Your task to perform on an android device: open device folders in google photos Image 0: 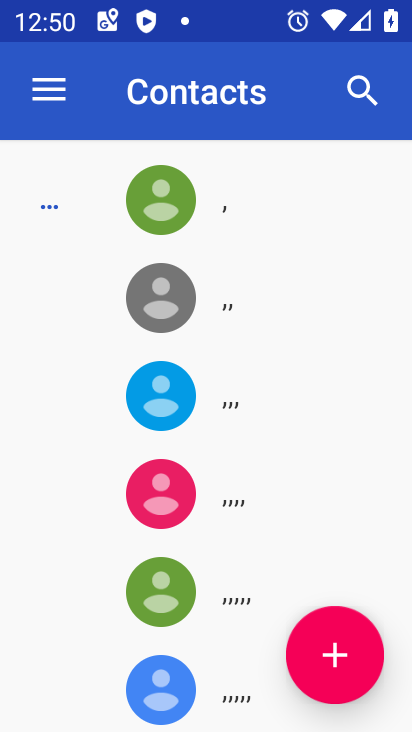
Step 0: press home button
Your task to perform on an android device: open device folders in google photos Image 1: 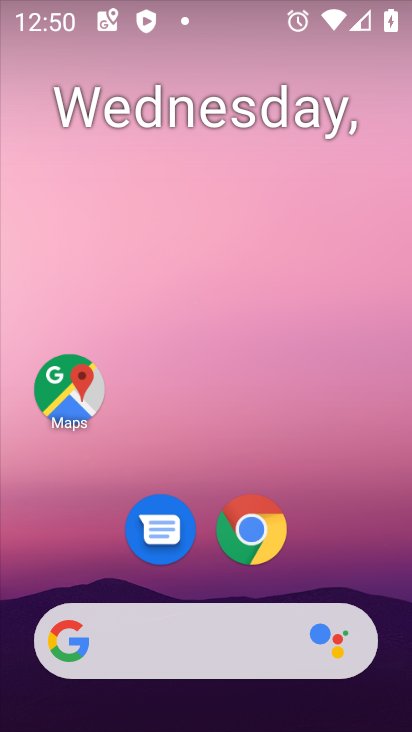
Step 1: drag from (394, 643) to (350, 94)
Your task to perform on an android device: open device folders in google photos Image 2: 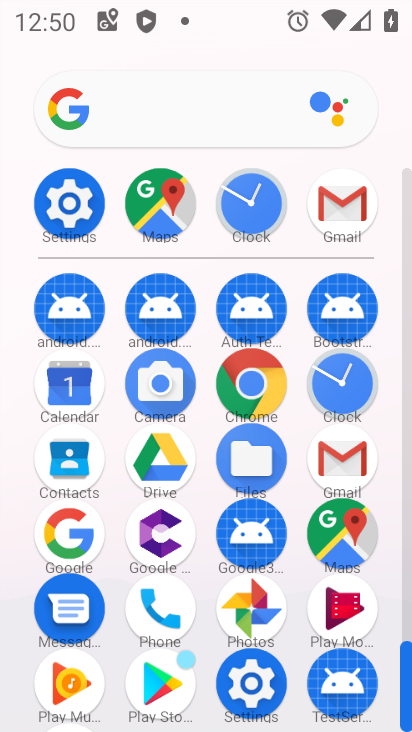
Step 2: click (252, 606)
Your task to perform on an android device: open device folders in google photos Image 3: 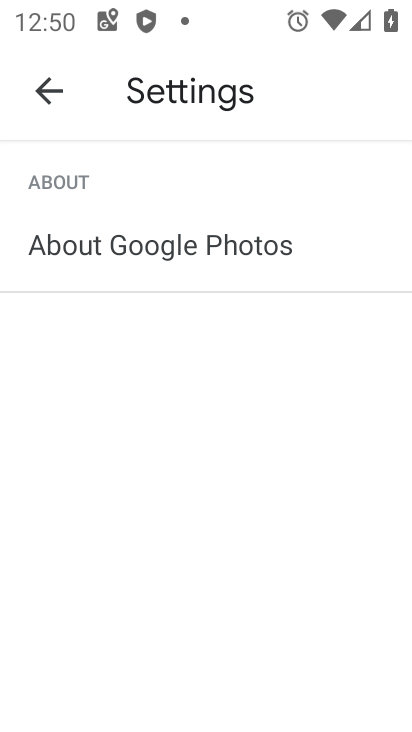
Step 3: press back button
Your task to perform on an android device: open device folders in google photos Image 4: 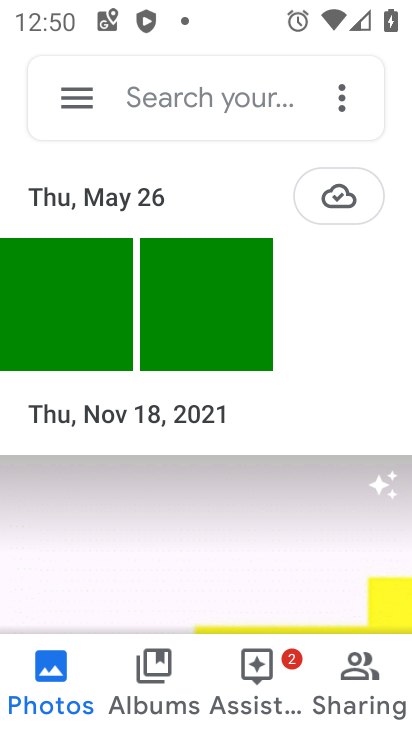
Step 4: click (69, 101)
Your task to perform on an android device: open device folders in google photos Image 5: 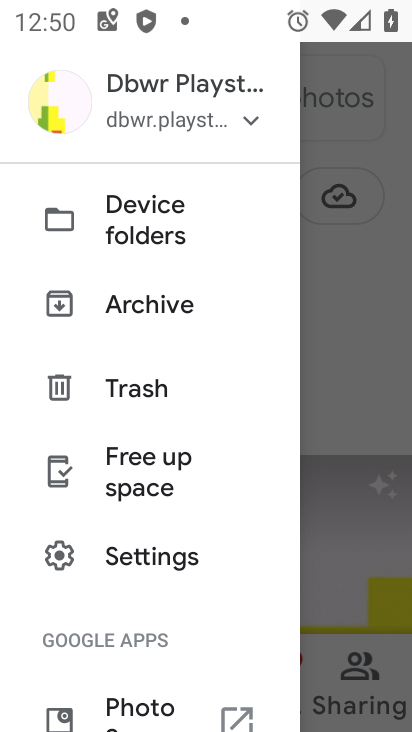
Step 5: click (146, 227)
Your task to perform on an android device: open device folders in google photos Image 6: 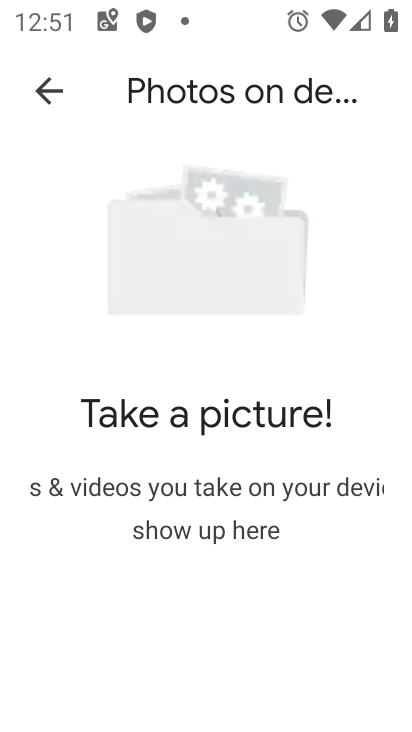
Step 6: task complete